Your task to perform on an android device: Go to Maps Image 0: 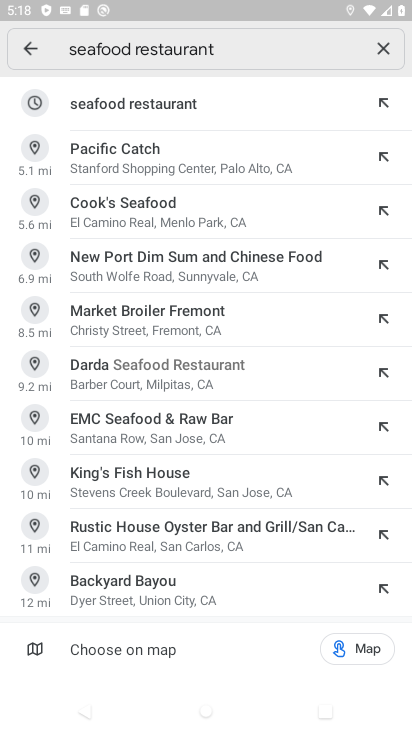
Step 0: press home button
Your task to perform on an android device: Go to Maps Image 1: 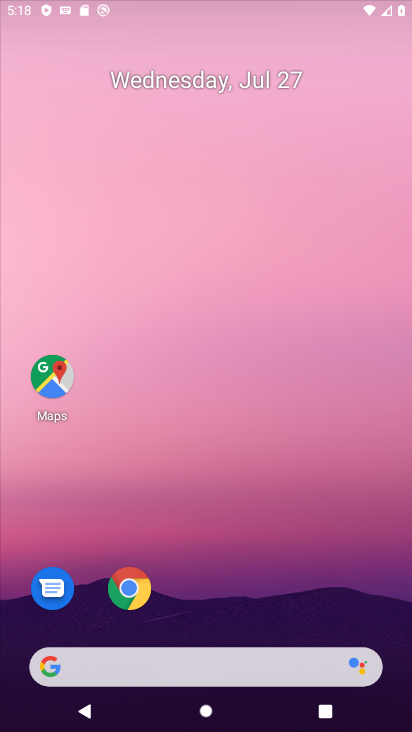
Step 1: drag from (274, 602) to (313, 38)
Your task to perform on an android device: Go to Maps Image 2: 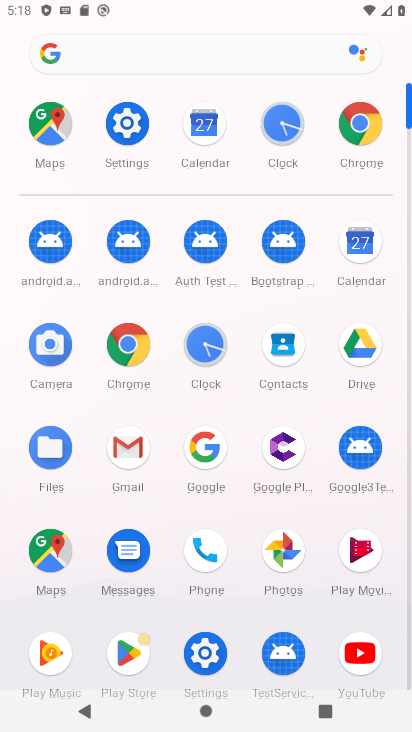
Step 2: click (26, 558)
Your task to perform on an android device: Go to Maps Image 3: 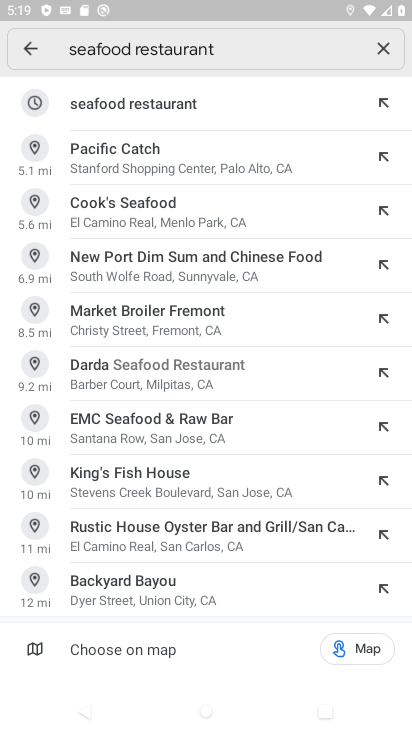
Step 3: task complete